Your task to perform on an android device: Open Google Maps and go to "Timeline" Image 0: 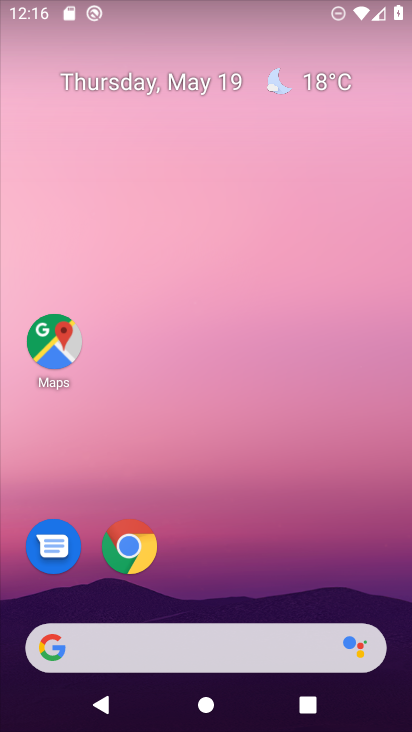
Step 0: drag from (240, 721) to (239, 241)
Your task to perform on an android device: Open Google Maps and go to "Timeline" Image 1: 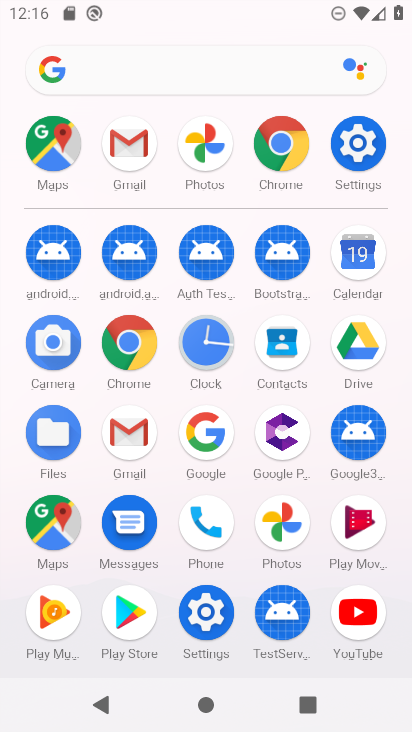
Step 1: click (52, 528)
Your task to perform on an android device: Open Google Maps and go to "Timeline" Image 2: 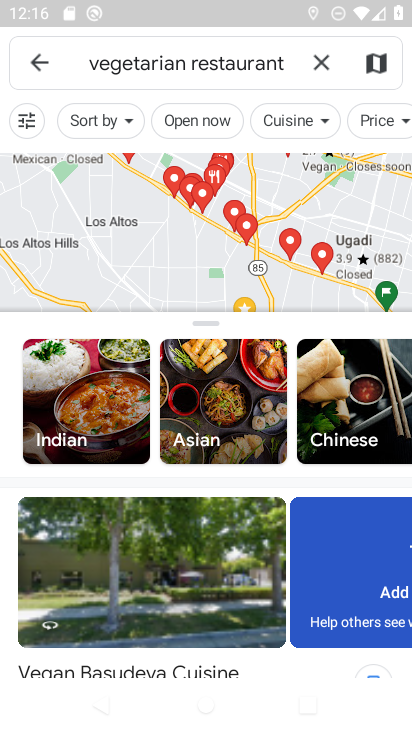
Step 2: click (38, 57)
Your task to perform on an android device: Open Google Maps and go to "Timeline" Image 3: 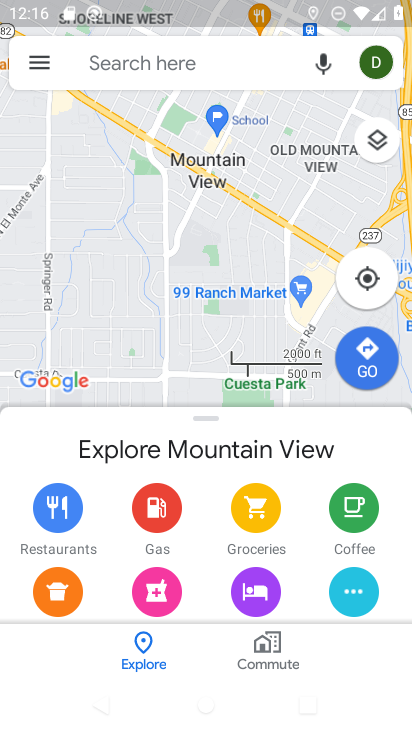
Step 3: click (40, 58)
Your task to perform on an android device: Open Google Maps and go to "Timeline" Image 4: 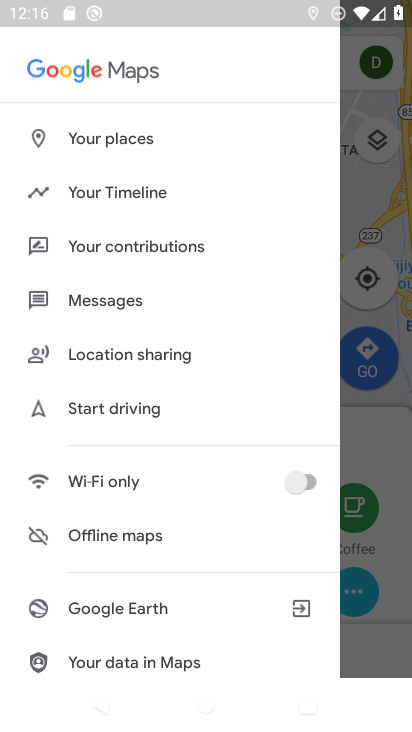
Step 4: click (118, 190)
Your task to perform on an android device: Open Google Maps and go to "Timeline" Image 5: 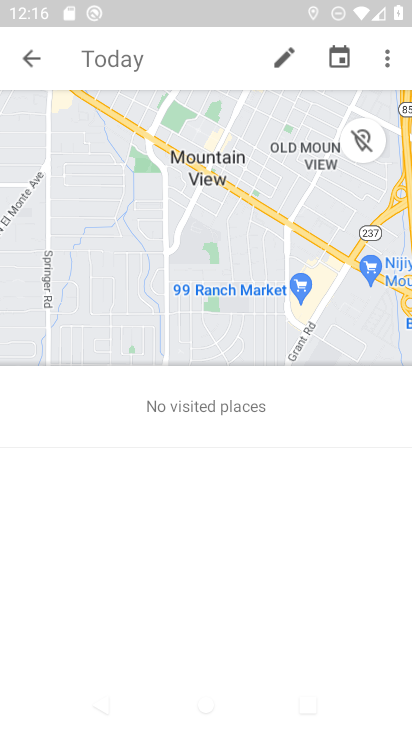
Step 5: task complete